Your task to perform on an android device: What's the weather going to be this weekend? Image 0: 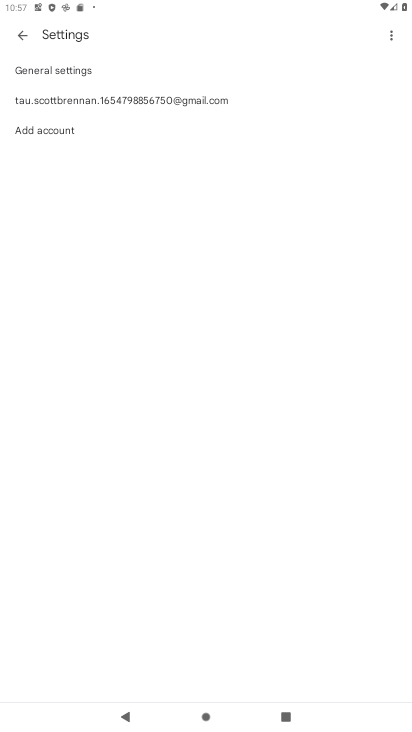
Step 0: press home button
Your task to perform on an android device: What's the weather going to be this weekend? Image 1: 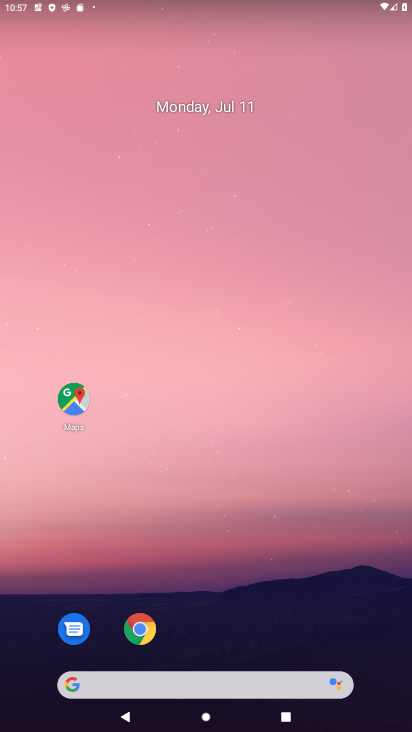
Step 1: drag from (246, 611) to (227, 193)
Your task to perform on an android device: What's the weather going to be this weekend? Image 2: 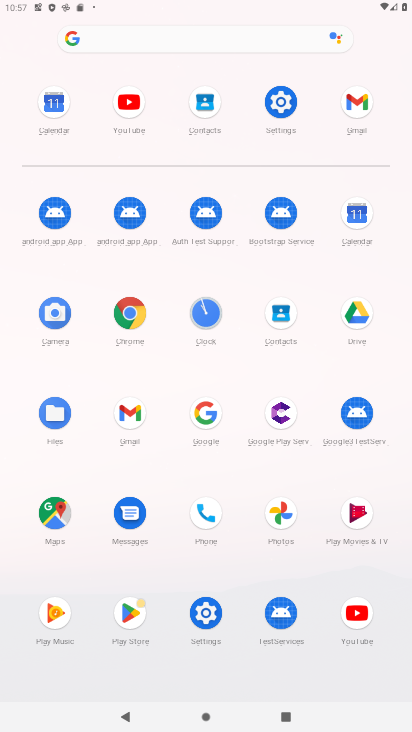
Step 2: click (238, 37)
Your task to perform on an android device: What's the weather going to be this weekend? Image 3: 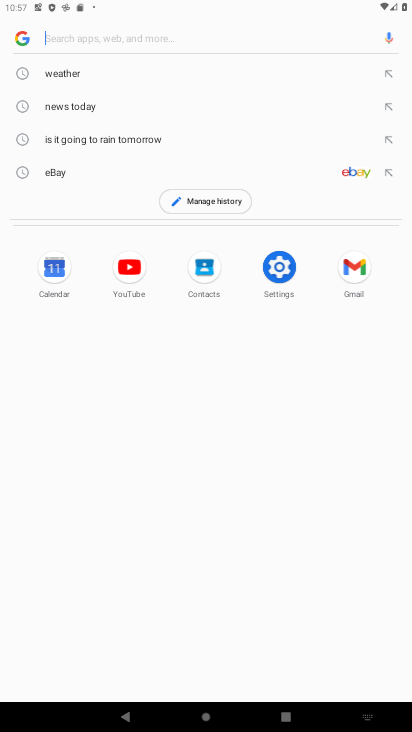
Step 3: click (158, 83)
Your task to perform on an android device: What's the weather going to be this weekend? Image 4: 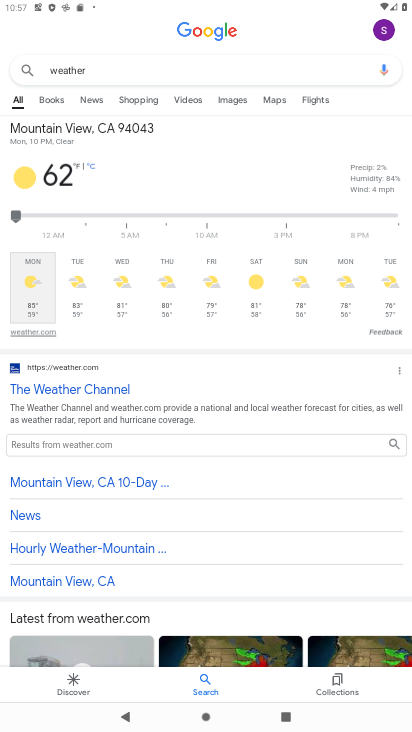
Step 4: task complete